Your task to perform on an android device: turn on priority inbox in the gmail app Image 0: 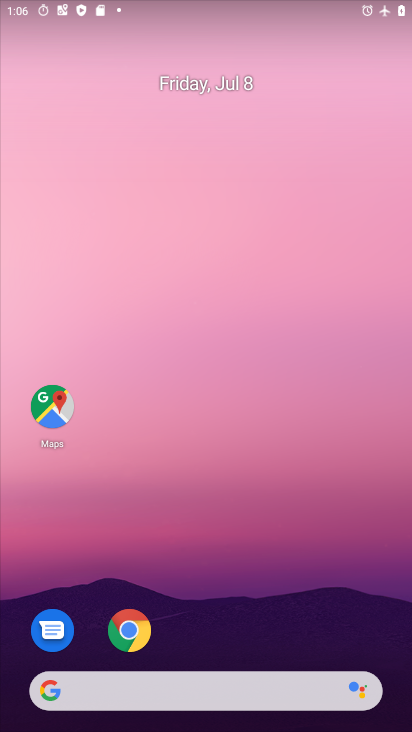
Step 0: drag from (225, 623) to (199, 196)
Your task to perform on an android device: turn on priority inbox in the gmail app Image 1: 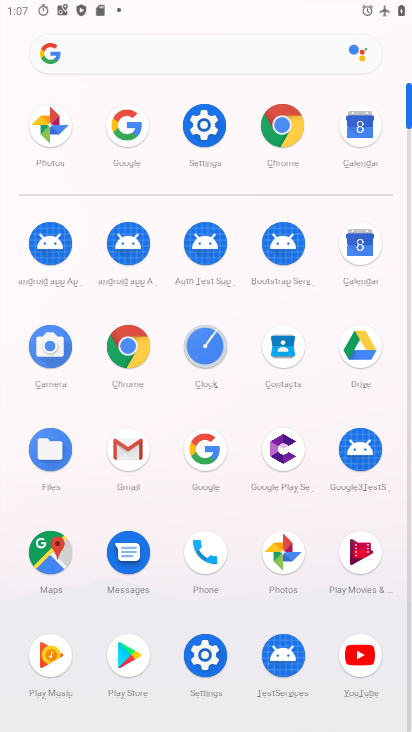
Step 1: click (142, 452)
Your task to perform on an android device: turn on priority inbox in the gmail app Image 2: 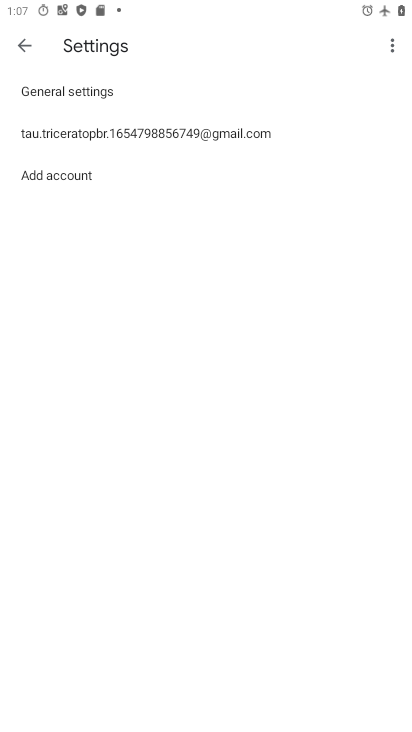
Step 2: click (75, 122)
Your task to perform on an android device: turn on priority inbox in the gmail app Image 3: 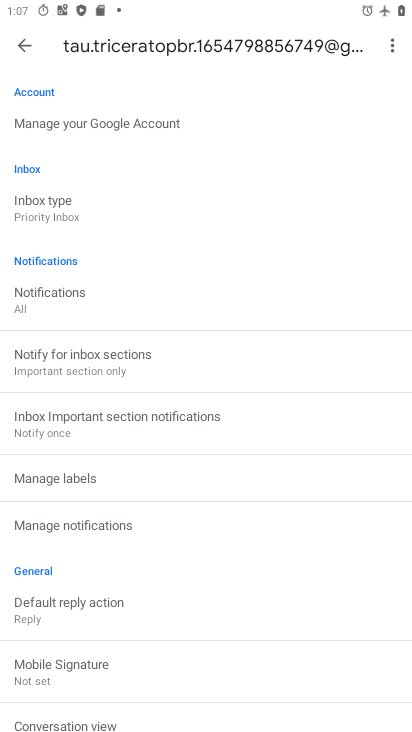
Step 3: click (97, 212)
Your task to perform on an android device: turn on priority inbox in the gmail app Image 4: 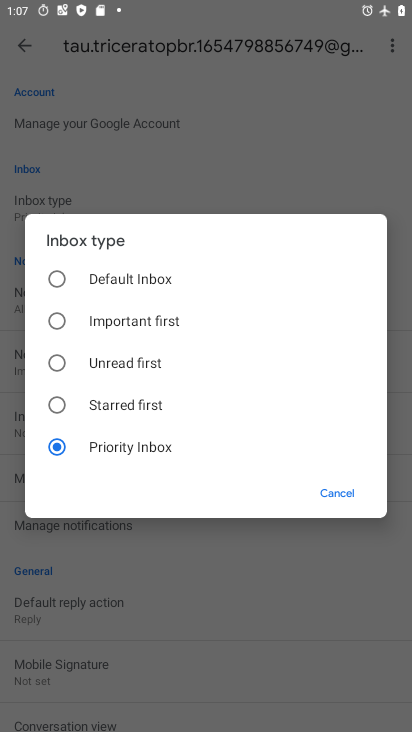
Step 4: task complete